Your task to perform on an android device: toggle javascript in the chrome app Image 0: 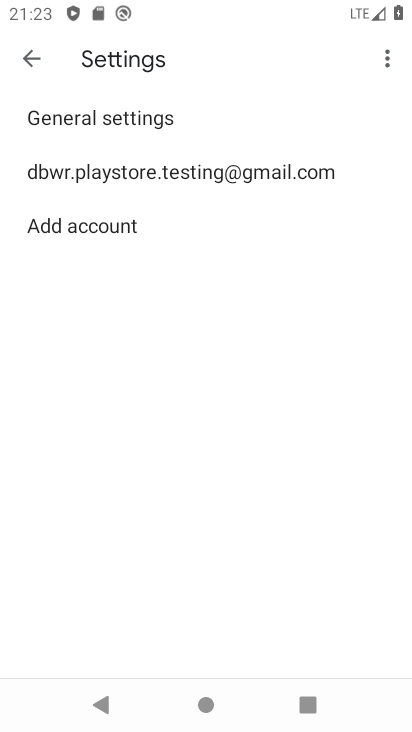
Step 0: press home button
Your task to perform on an android device: toggle javascript in the chrome app Image 1: 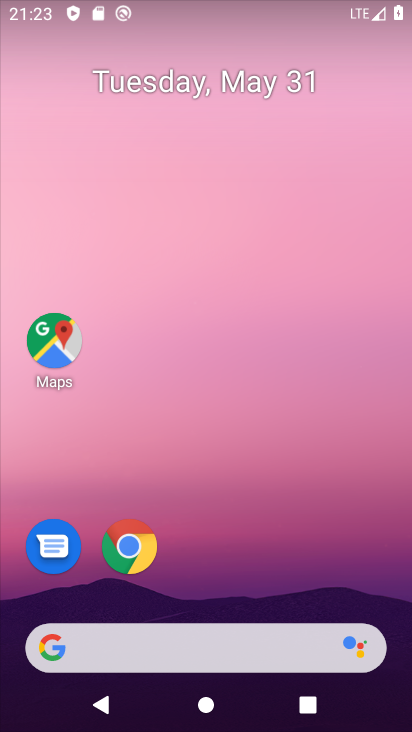
Step 1: click (117, 542)
Your task to perform on an android device: toggle javascript in the chrome app Image 2: 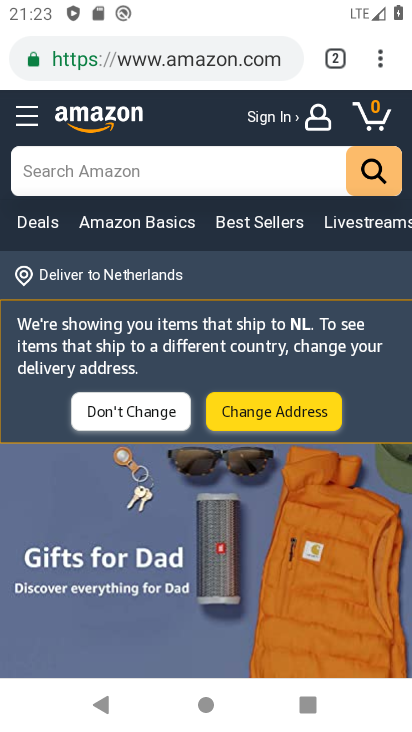
Step 2: click (379, 55)
Your task to perform on an android device: toggle javascript in the chrome app Image 3: 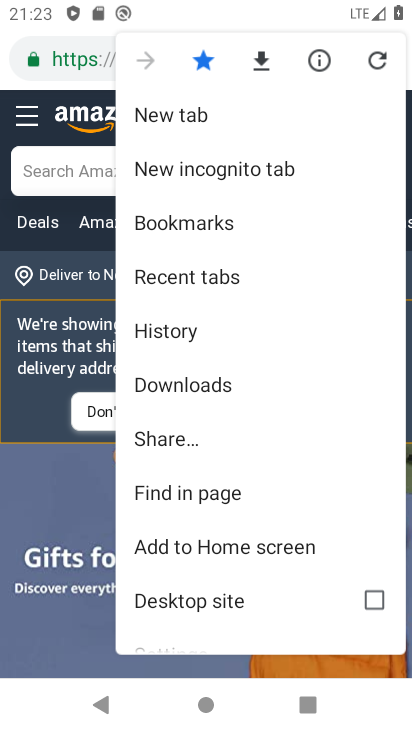
Step 3: drag from (282, 565) to (280, 227)
Your task to perform on an android device: toggle javascript in the chrome app Image 4: 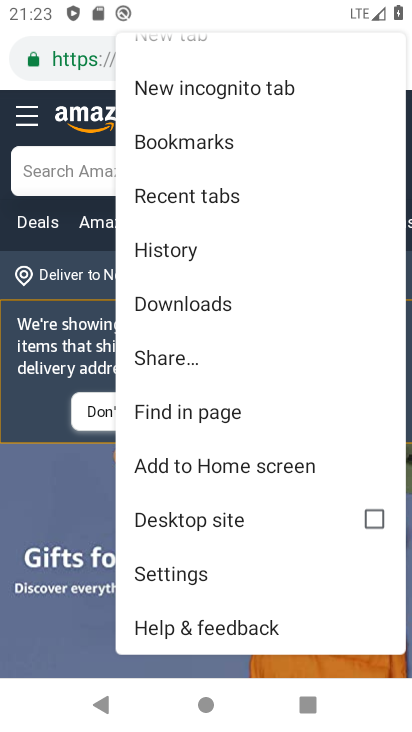
Step 4: click (171, 575)
Your task to perform on an android device: toggle javascript in the chrome app Image 5: 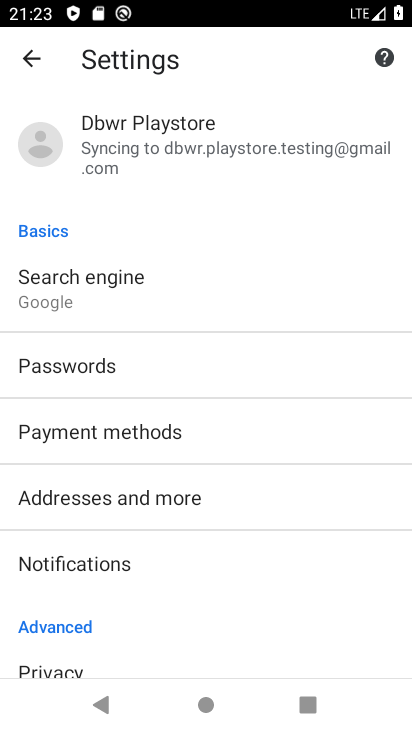
Step 5: drag from (243, 623) to (270, 281)
Your task to perform on an android device: toggle javascript in the chrome app Image 6: 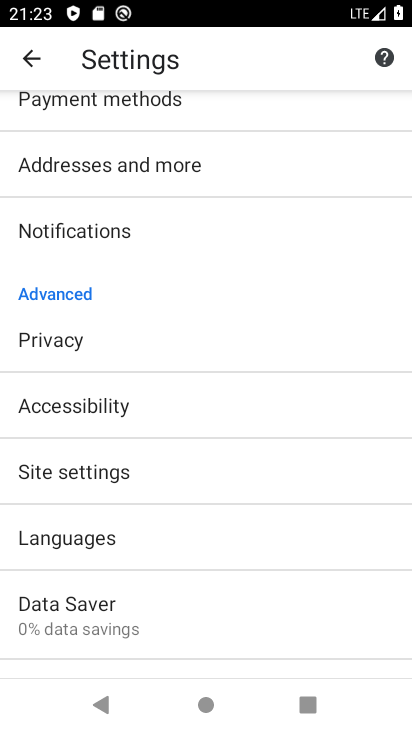
Step 6: click (86, 465)
Your task to perform on an android device: toggle javascript in the chrome app Image 7: 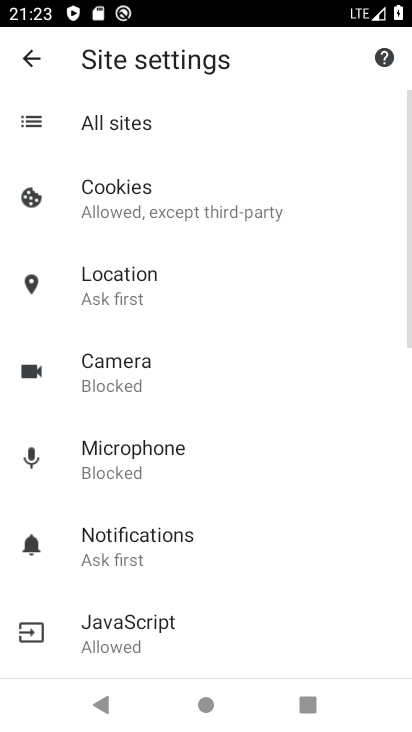
Step 7: drag from (231, 635) to (238, 258)
Your task to perform on an android device: toggle javascript in the chrome app Image 8: 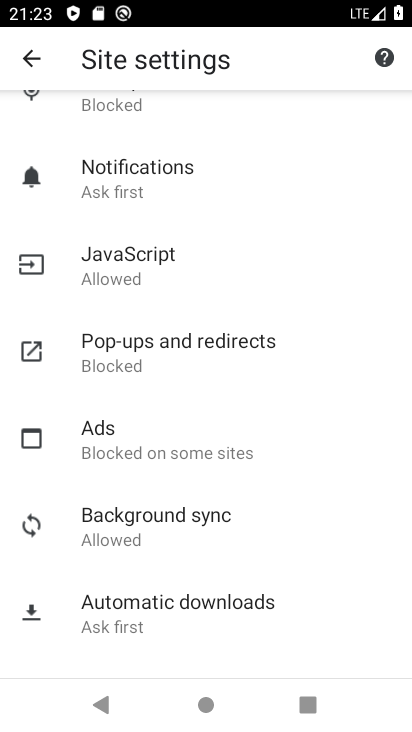
Step 8: click (121, 259)
Your task to perform on an android device: toggle javascript in the chrome app Image 9: 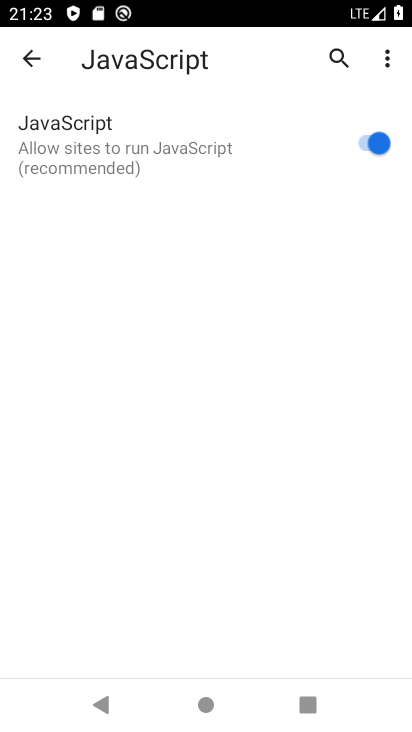
Step 9: click (367, 143)
Your task to perform on an android device: toggle javascript in the chrome app Image 10: 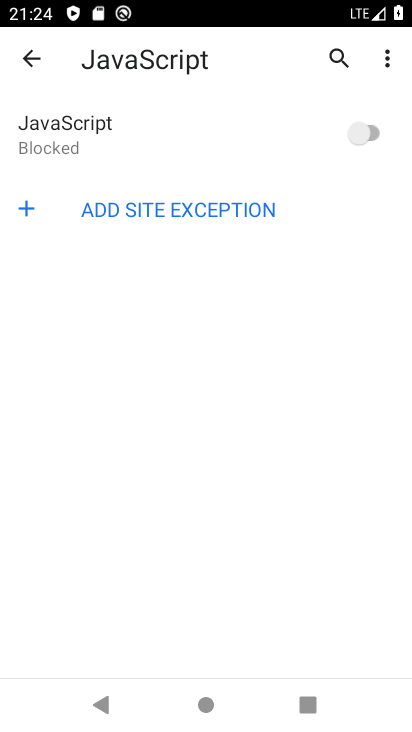
Step 10: task complete